Your task to perform on an android device: What is the news today? Image 0: 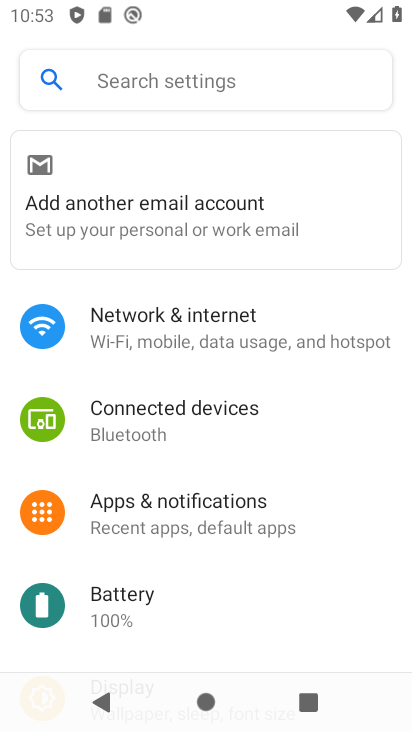
Step 0: drag from (275, 591) to (340, 347)
Your task to perform on an android device: What is the news today? Image 1: 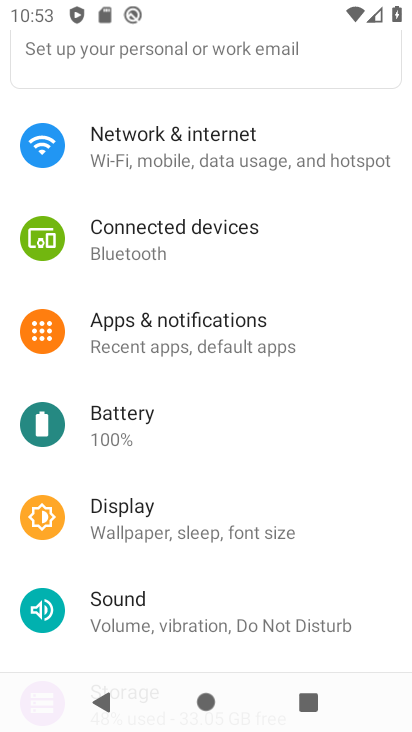
Step 1: press home button
Your task to perform on an android device: What is the news today? Image 2: 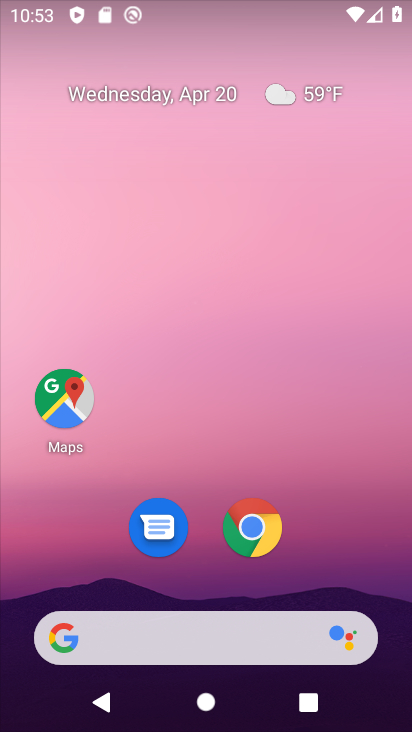
Step 2: drag from (352, 552) to (386, 129)
Your task to perform on an android device: What is the news today? Image 3: 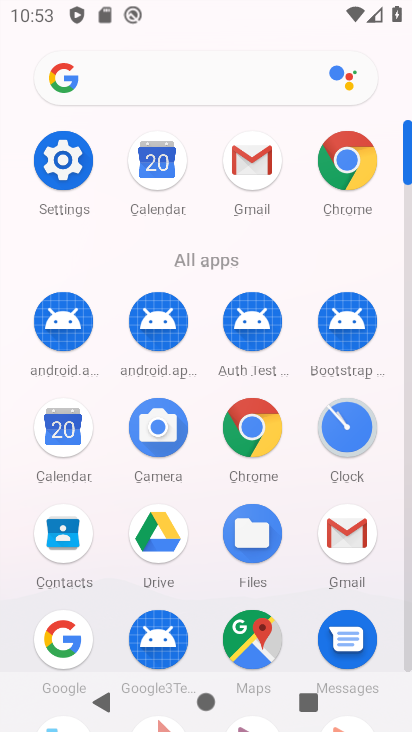
Step 3: click (343, 175)
Your task to perform on an android device: What is the news today? Image 4: 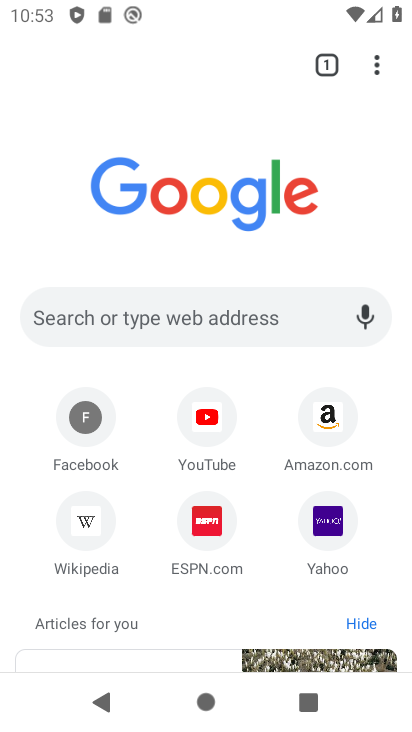
Step 4: click (244, 328)
Your task to perform on an android device: What is the news today? Image 5: 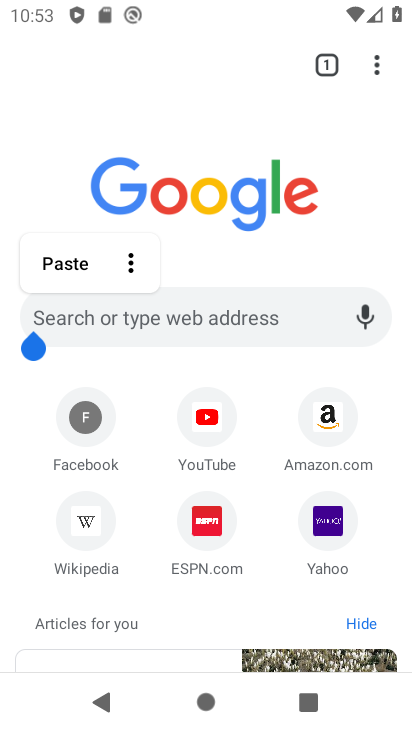
Step 5: click (245, 322)
Your task to perform on an android device: What is the news today? Image 6: 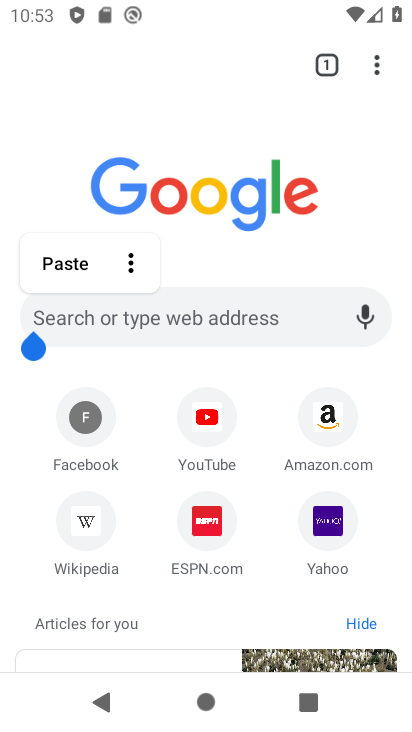
Step 6: click (223, 317)
Your task to perform on an android device: What is the news today? Image 7: 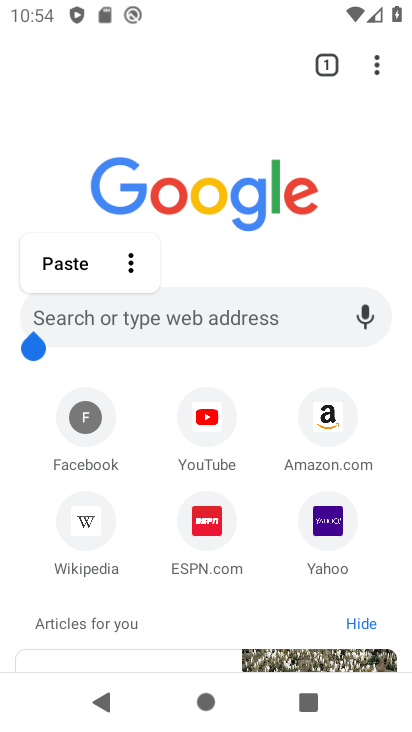
Step 7: click (190, 317)
Your task to perform on an android device: What is the news today? Image 8: 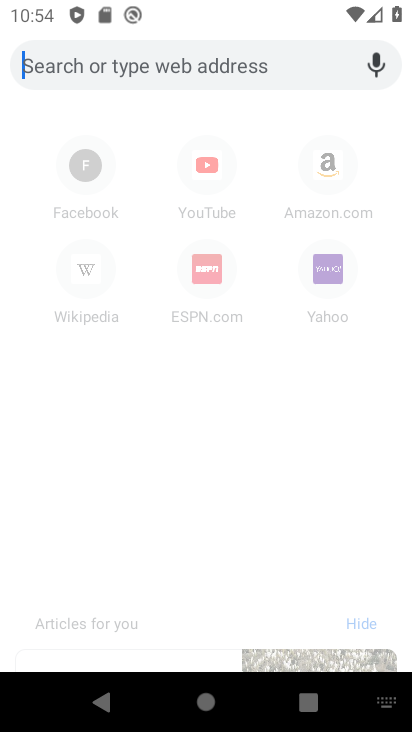
Step 8: type "news today"
Your task to perform on an android device: What is the news today? Image 9: 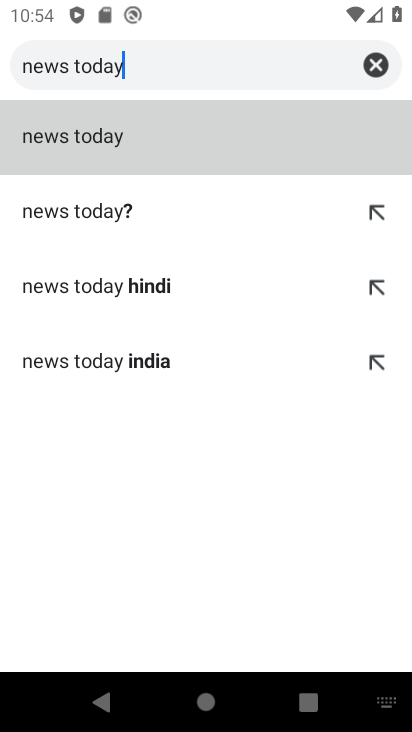
Step 9: click (73, 124)
Your task to perform on an android device: What is the news today? Image 10: 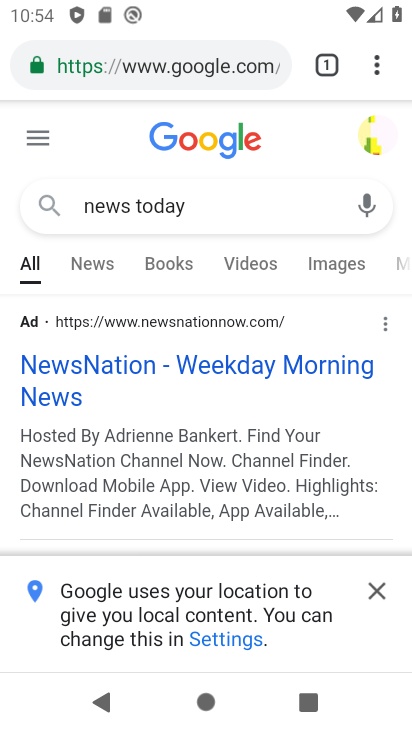
Step 10: click (95, 368)
Your task to perform on an android device: What is the news today? Image 11: 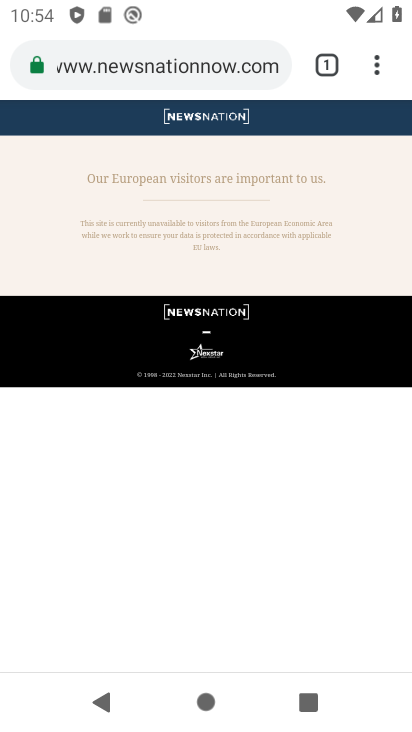
Step 11: task complete